Your task to perform on an android device: open chrome and create a bookmark for the current page Image 0: 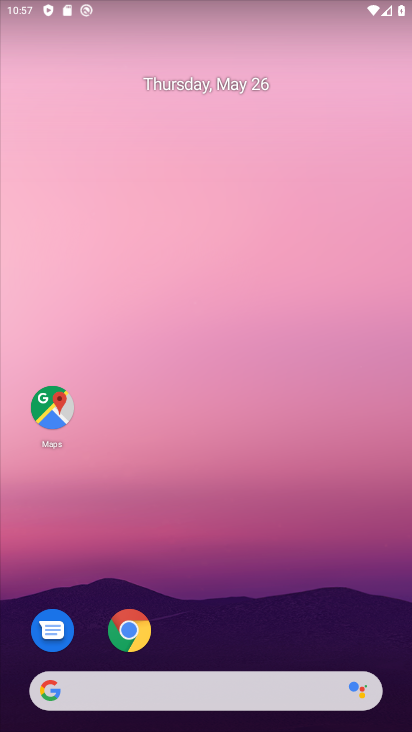
Step 0: click (129, 631)
Your task to perform on an android device: open chrome and create a bookmark for the current page Image 1: 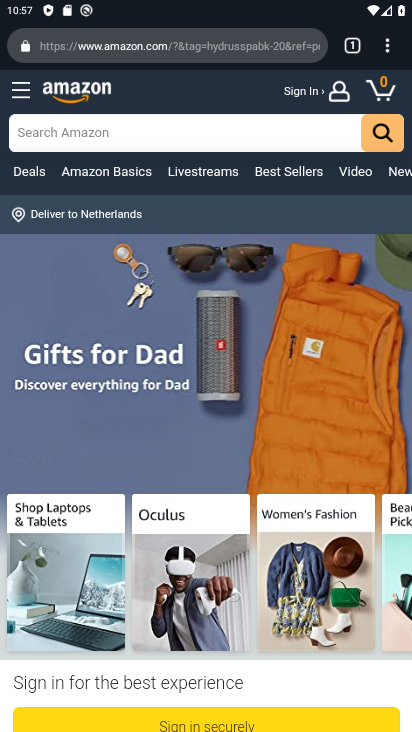
Step 1: click (389, 49)
Your task to perform on an android device: open chrome and create a bookmark for the current page Image 2: 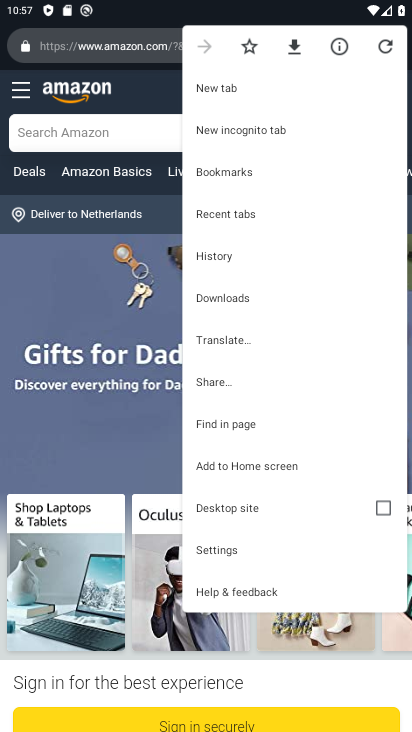
Step 2: click (249, 46)
Your task to perform on an android device: open chrome and create a bookmark for the current page Image 3: 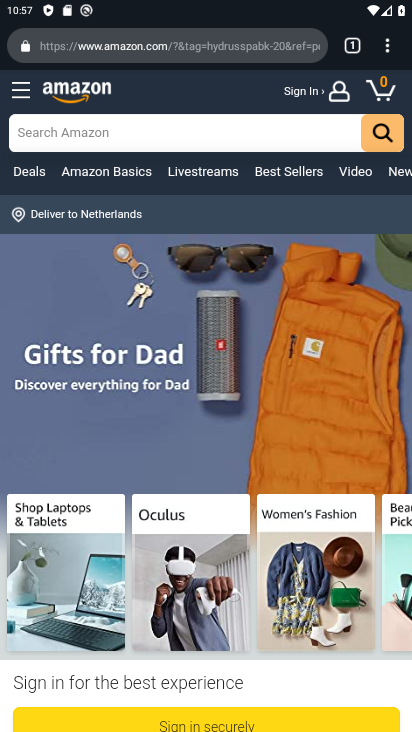
Step 3: task complete